Your task to perform on an android device: Go to Android settings Image 0: 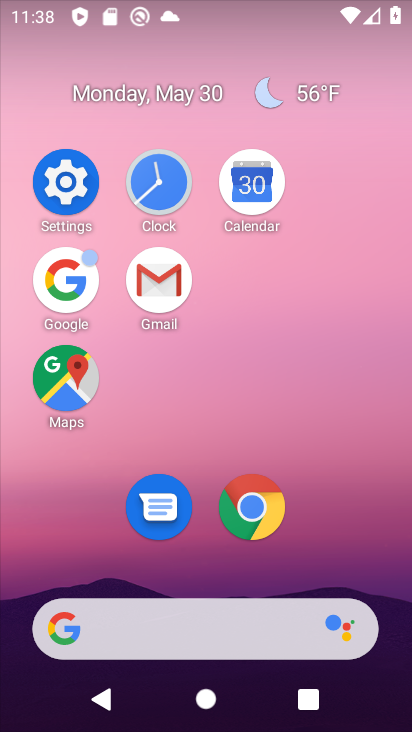
Step 0: click (61, 188)
Your task to perform on an android device: Go to Android settings Image 1: 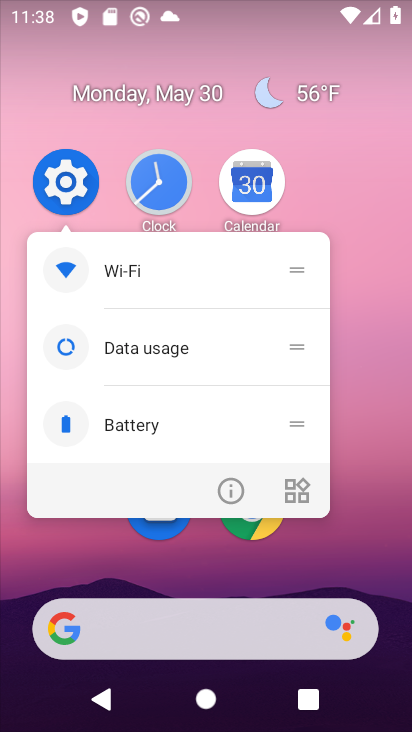
Step 1: click (61, 188)
Your task to perform on an android device: Go to Android settings Image 2: 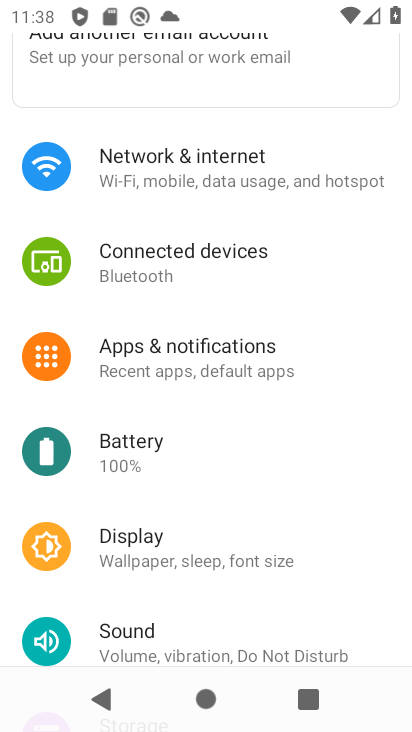
Step 2: task complete